Your task to perform on an android device: Open Maps and search for coffee Image 0: 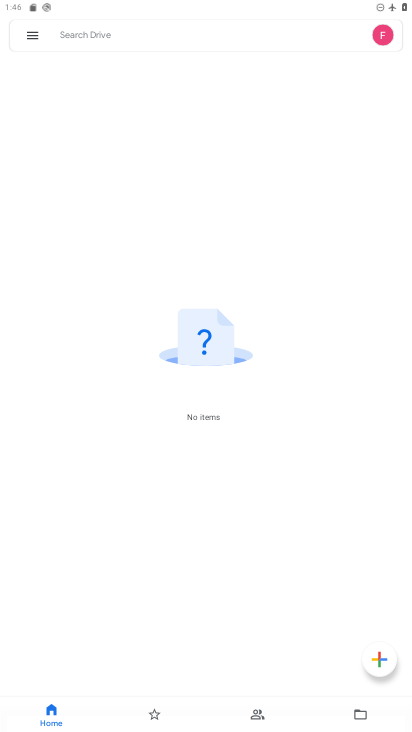
Step 0: press home button
Your task to perform on an android device: Open Maps and search for coffee Image 1: 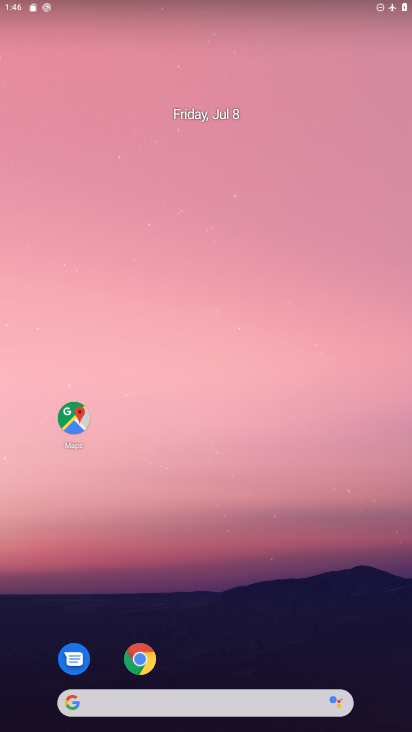
Step 1: click (74, 420)
Your task to perform on an android device: Open Maps and search for coffee Image 2: 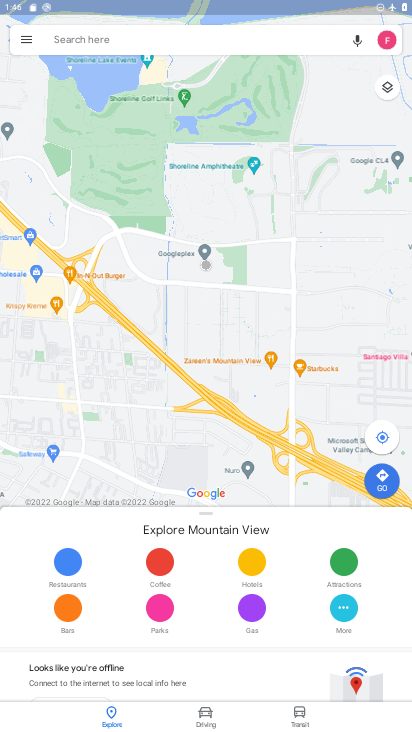
Step 2: click (169, 33)
Your task to perform on an android device: Open Maps and search for coffee Image 3: 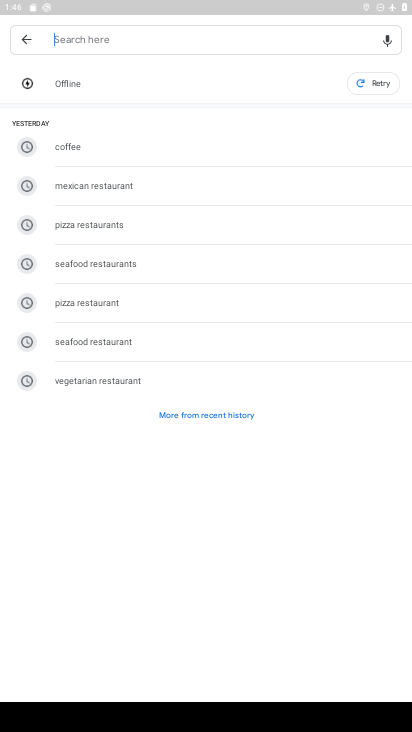
Step 3: click (156, 36)
Your task to perform on an android device: Open Maps and search for coffee Image 4: 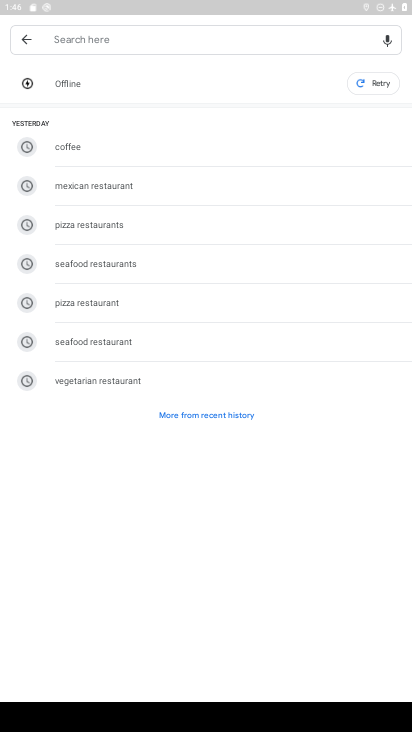
Step 4: click (69, 151)
Your task to perform on an android device: Open Maps and search for coffee Image 5: 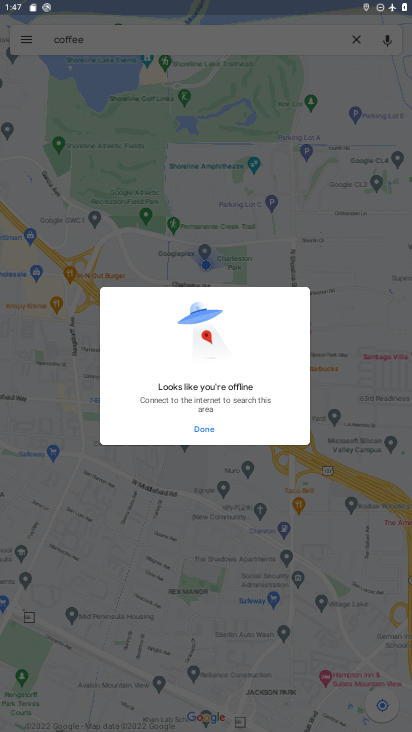
Step 5: click (199, 430)
Your task to perform on an android device: Open Maps and search for coffee Image 6: 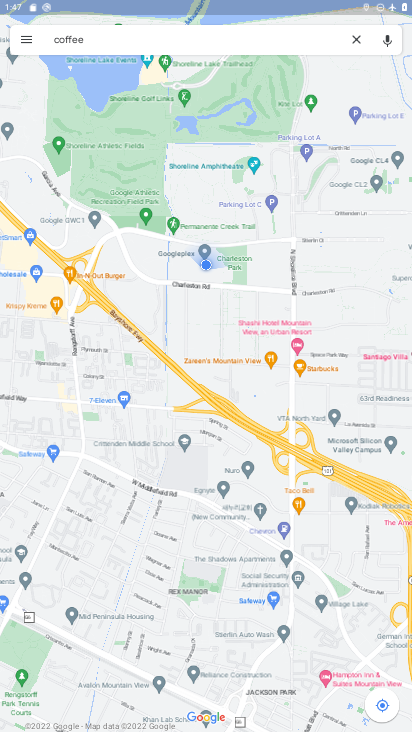
Step 6: task complete